Your task to perform on an android device: turn off notifications in google photos Image 0: 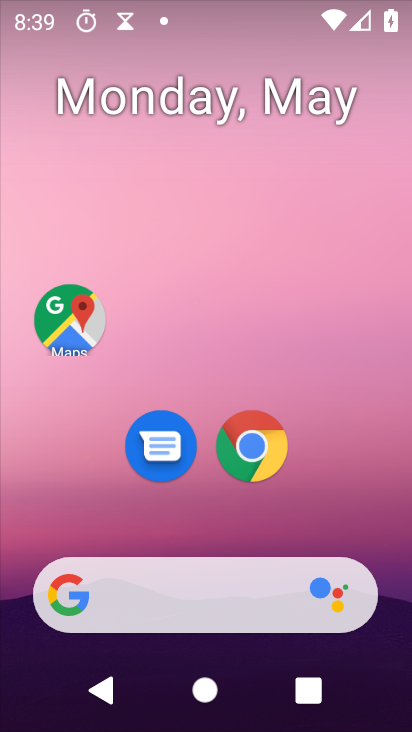
Step 0: drag from (378, 492) to (339, 0)
Your task to perform on an android device: turn off notifications in google photos Image 1: 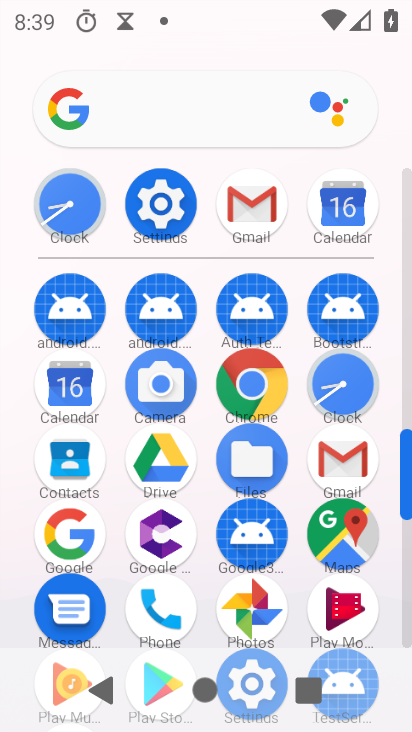
Step 1: click (238, 618)
Your task to perform on an android device: turn off notifications in google photos Image 2: 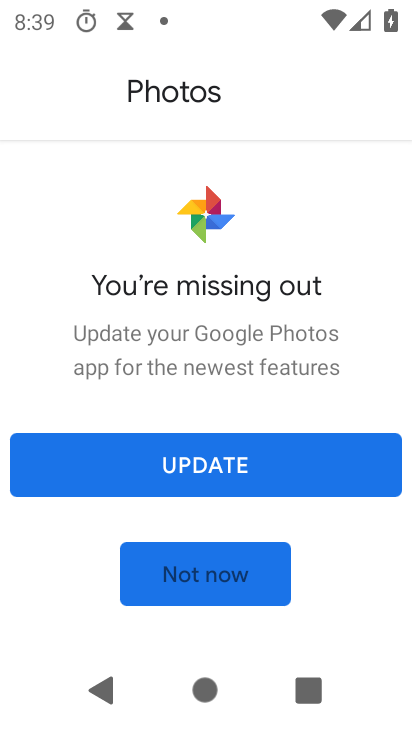
Step 2: click (207, 578)
Your task to perform on an android device: turn off notifications in google photos Image 3: 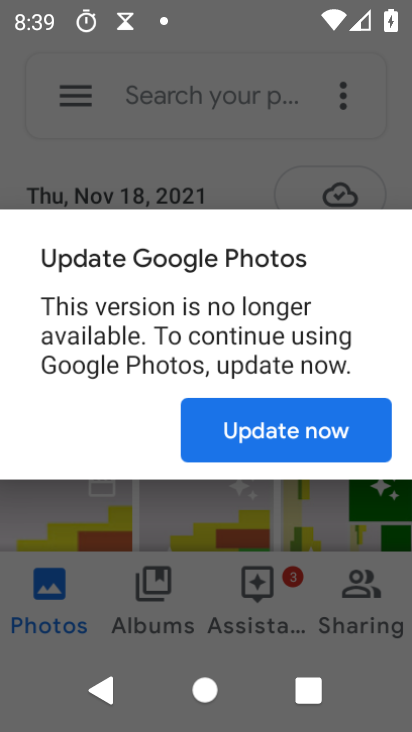
Step 3: click (194, 582)
Your task to perform on an android device: turn off notifications in google photos Image 4: 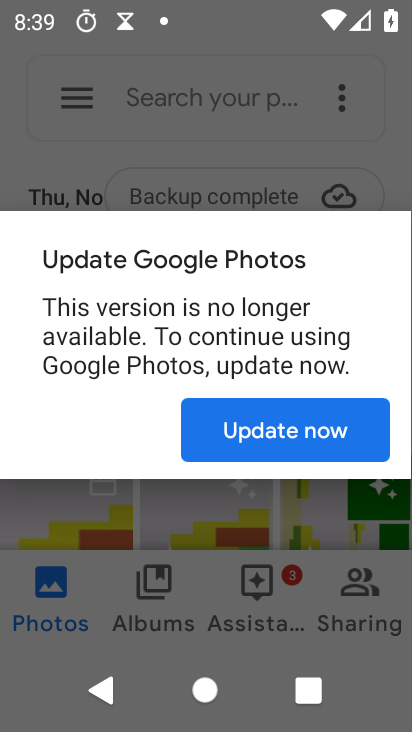
Step 4: click (244, 436)
Your task to perform on an android device: turn off notifications in google photos Image 5: 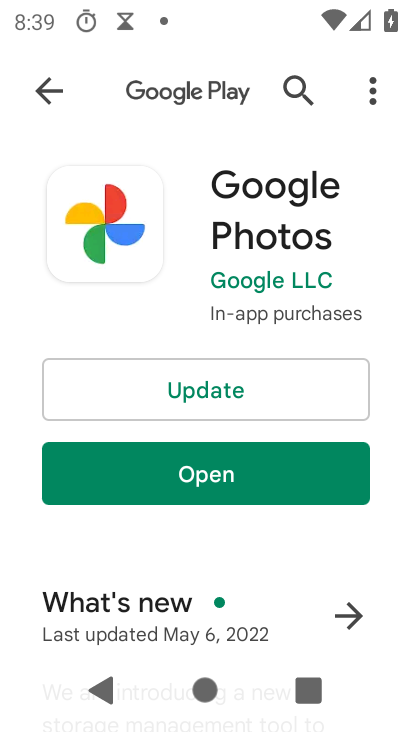
Step 5: click (224, 468)
Your task to perform on an android device: turn off notifications in google photos Image 6: 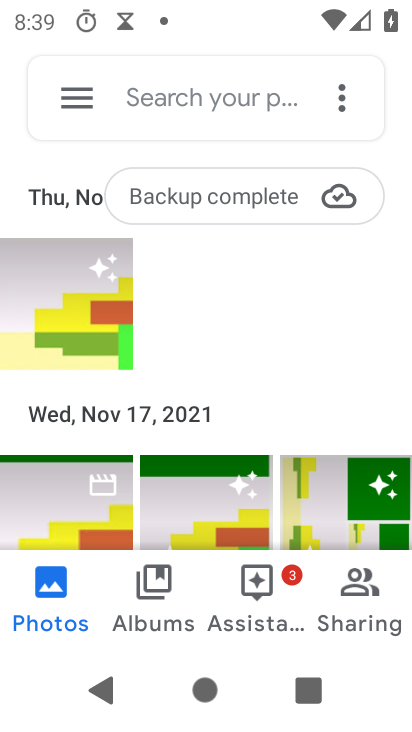
Step 6: click (66, 97)
Your task to perform on an android device: turn off notifications in google photos Image 7: 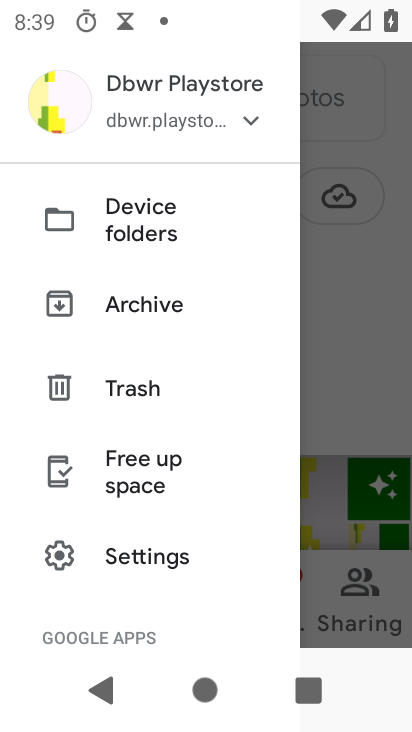
Step 7: click (181, 561)
Your task to perform on an android device: turn off notifications in google photos Image 8: 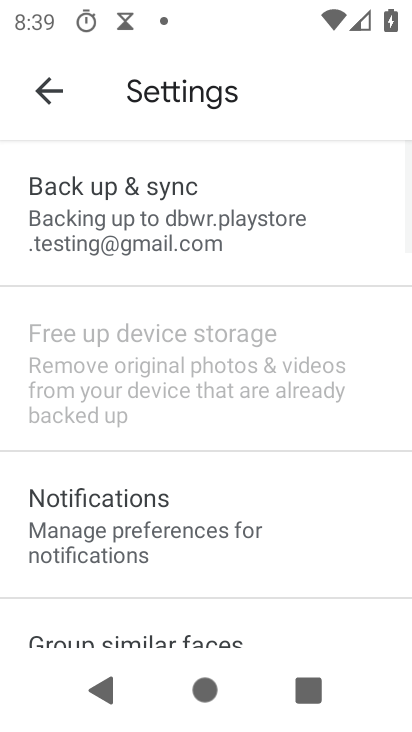
Step 8: click (180, 540)
Your task to perform on an android device: turn off notifications in google photos Image 9: 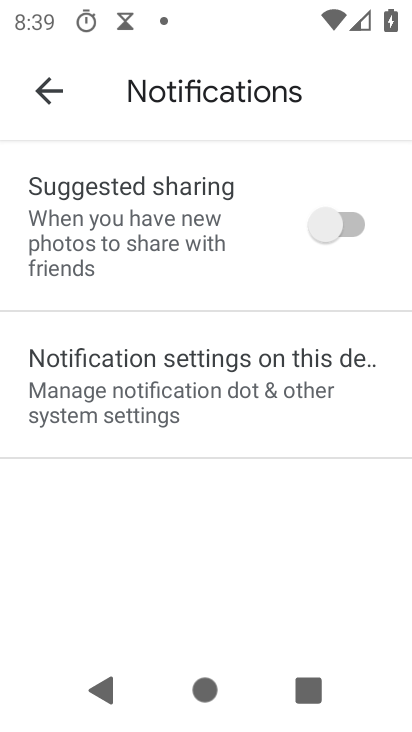
Step 9: click (186, 400)
Your task to perform on an android device: turn off notifications in google photos Image 10: 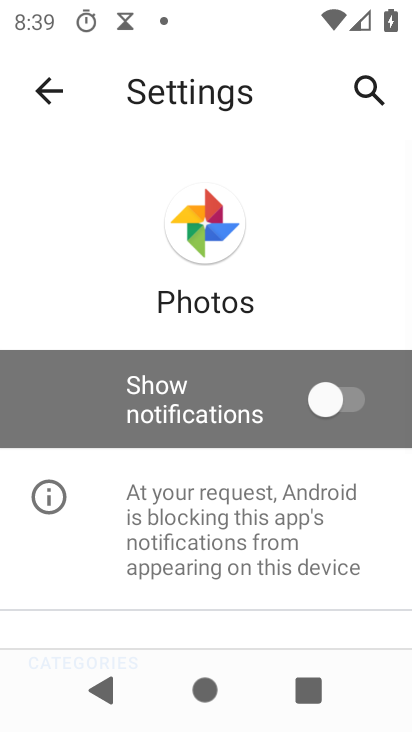
Step 10: task complete